Your task to perform on an android device: Toggle the flashlight Image 0: 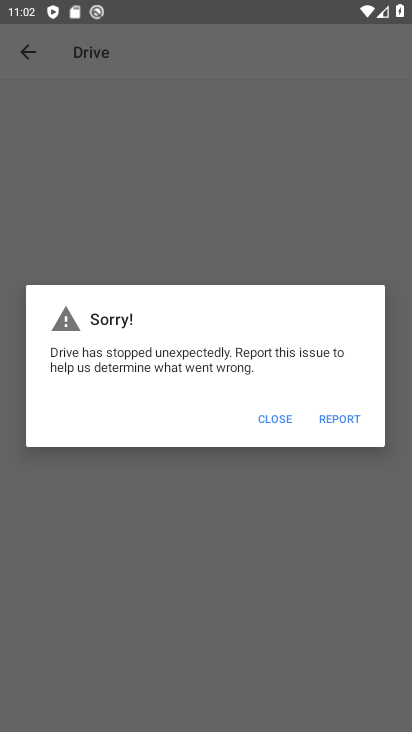
Step 0: press home button
Your task to perform on an android device: Toggle the flashlight Image 1: 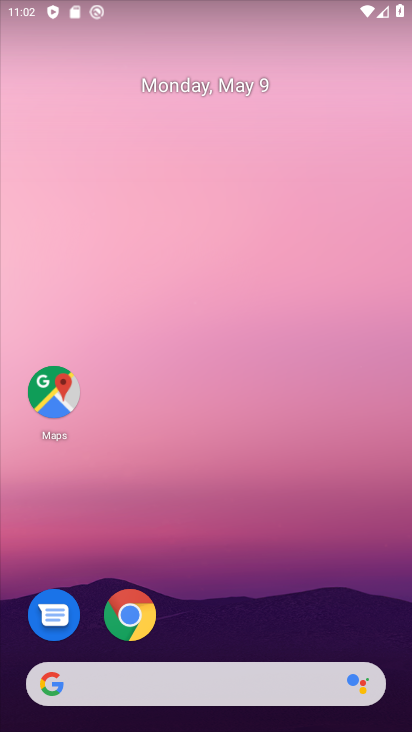
Step 1: drag from (214, 725) to (216, 205)
Your task to perform on an android device: Toggle the flashlight Image 2: 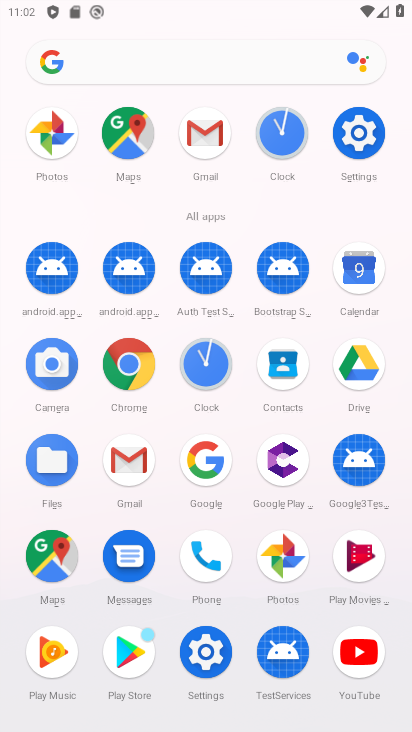
Step 2: click (397, 116)
Your task to perform on an android device: Toggle the flashlight Image 3: 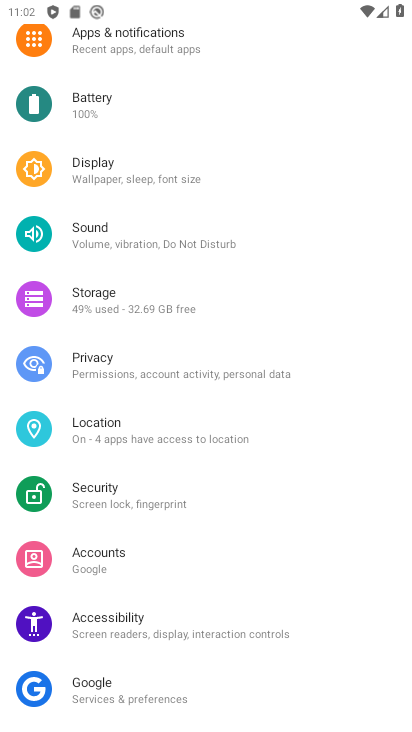
Step 3: task complete